Your task to perform on an android device: Go to internet settings Image 0: 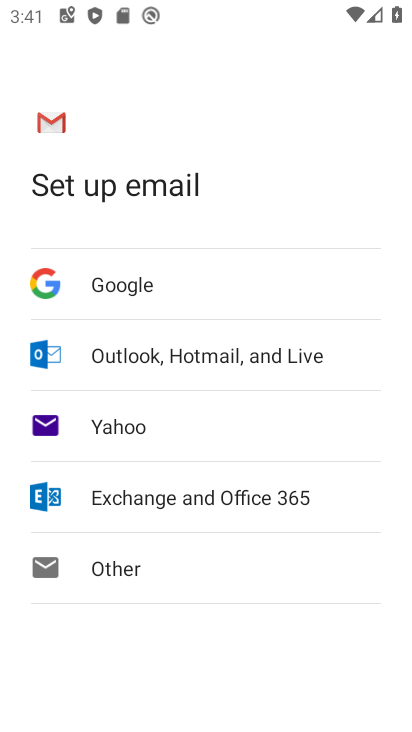
Step 0: press home button
Your task to perform on an android device: Go to internet settings Image 1: 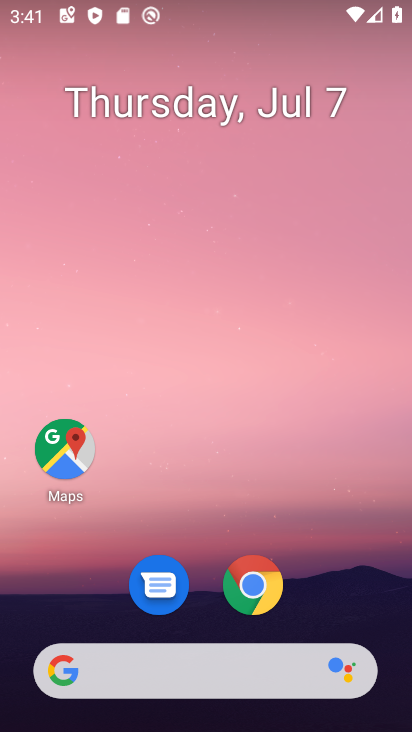
Step 1: drag from (326, 549) to (358, 41)
Your task to perform on an android device: Go to internet settings Image 2: 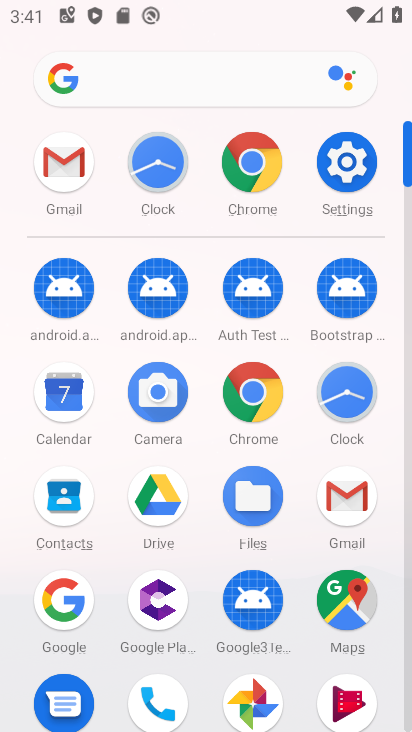
Step 2: click (346, 170)
Your task to perform on an android device: Go to internet settings Image 3: 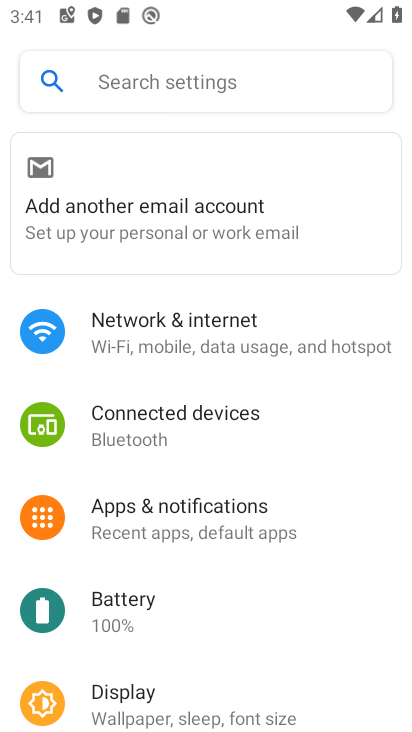
Step 3: click (195, 317)
Your task to perform on an android device: Go to internet settings Image 4: 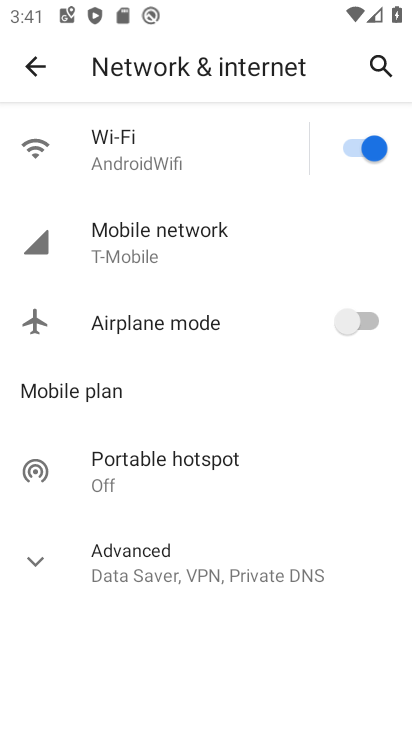
Step 4: task complete